Your task to perform on an android device: Open Youtube and go to the subscriptions tab Image 0: 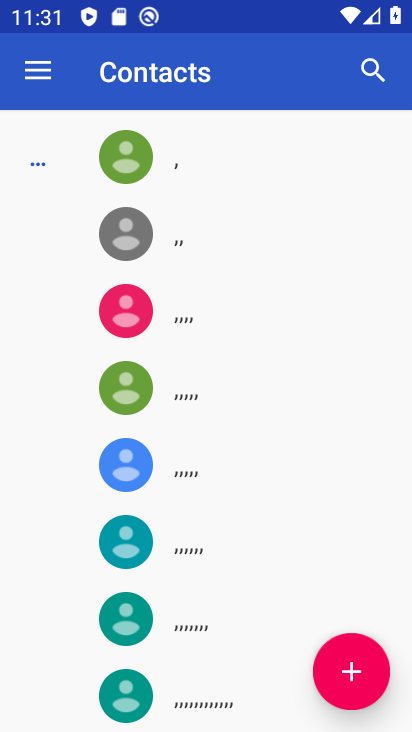
Step 0: press home button
Your task to perform on an android device: Open Youtube and go to the subscriptions tab Image 1: 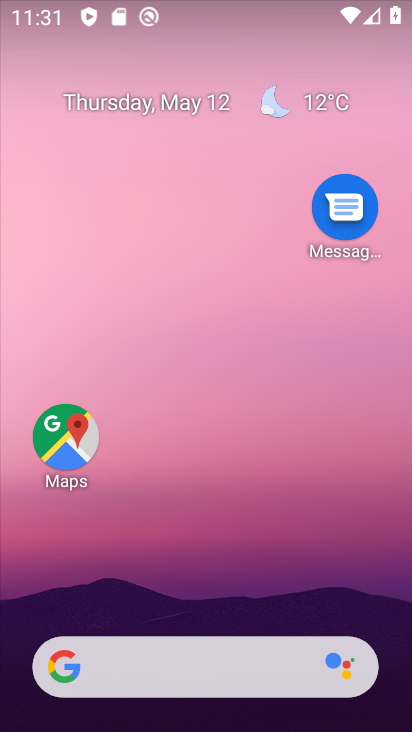
Step 1: drag from (317, 384) to (229, 25)
Your task to perform on an android device: Open Youtube and go to the subscriptions tab Image 2: 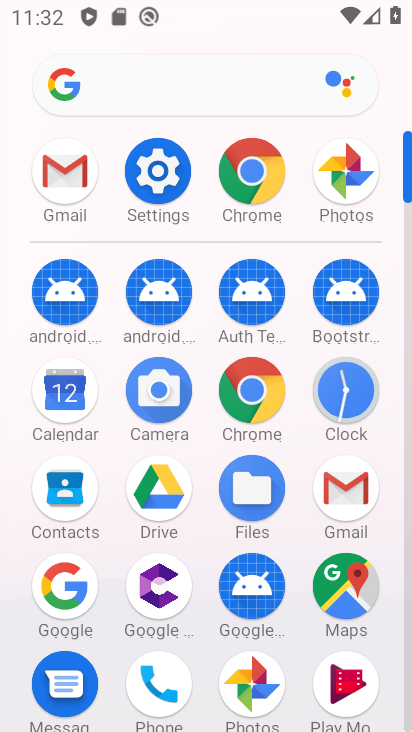
Step 2: click (409, 701)
Your task to perform on an android device: Open Youtube and go to the subscriptions tab Image 3: 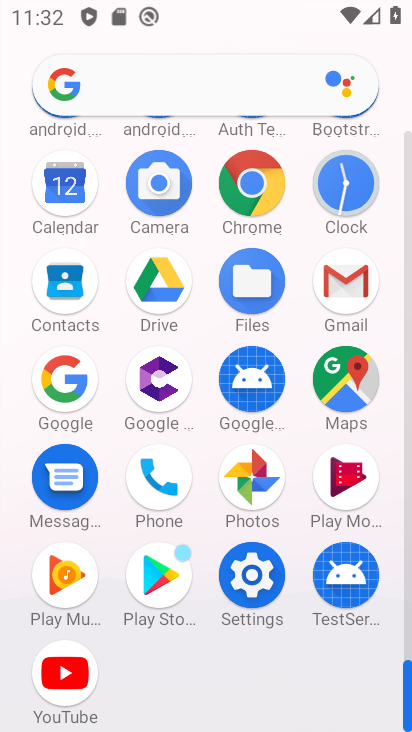
Step 3: click (49, 656)
Your task to perform on an android device: Open Youtube and go to the subscriptions tab Image 4: 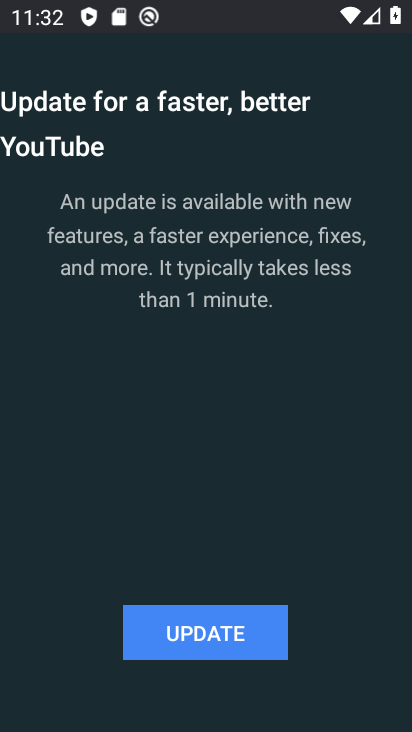
Step 4: click (202, 652)
Your task to perform on an android device: Open Youtube and go to the subscriptions tab Image 5: 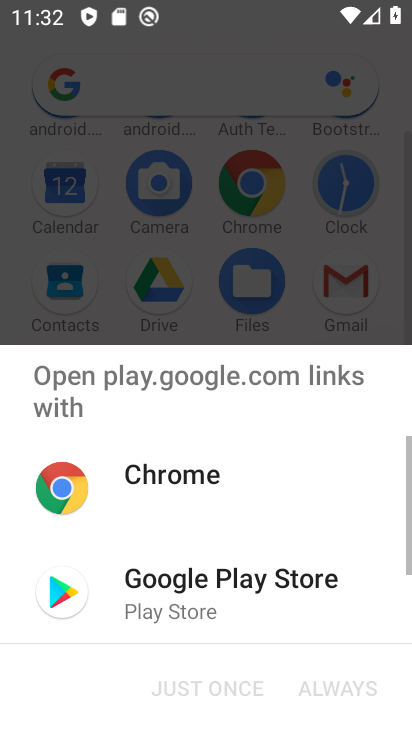
Step 5: click (202, 619)
Your task to perform on an android device: Open Youtube and go to the subscriptions tab Image 6: 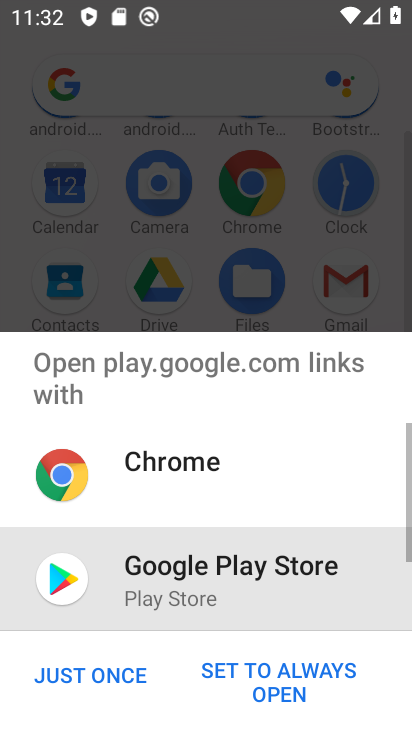
Step 6: click (111, 684)
Your task to perform on an android device: Open Youtube and go to the subscriptions tab Image 7: 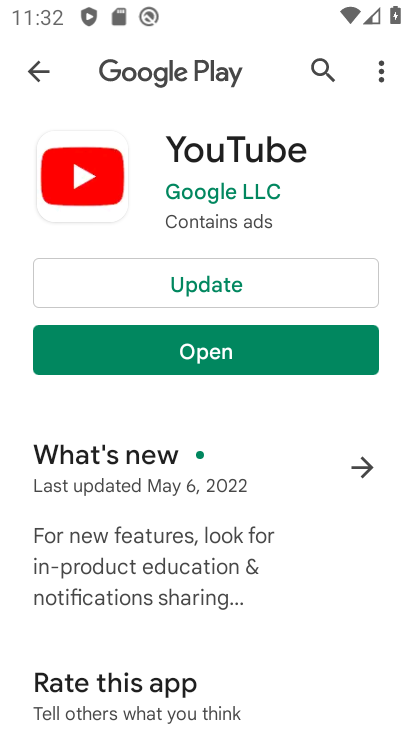
Step 7: click (242, 289)
Your task to perform on an android device: Open Youtube and go to the subscriptions tab Image 8: 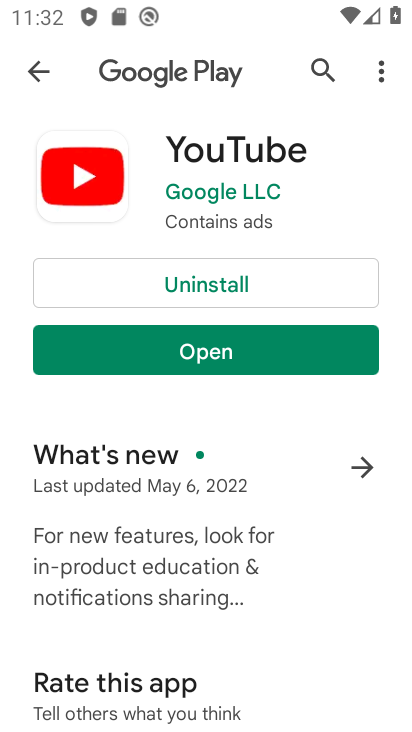
Step 8: click (286, 364)
Your task to perform on an android device: Open Youtube and go to the subscriptions tab Image 9: 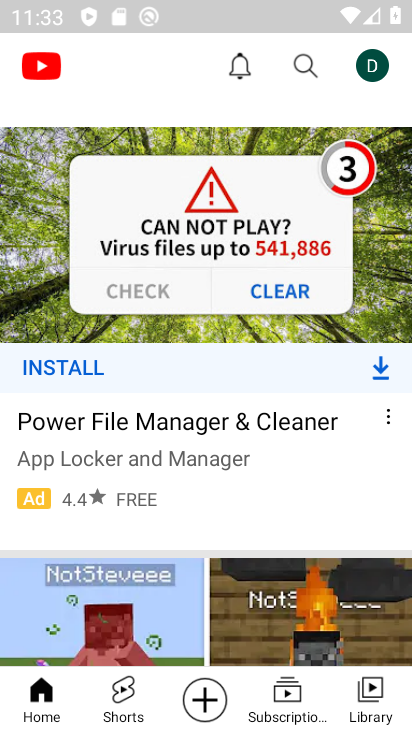
Step 9: click (346, 715)
Your task to perform on an android device: Open Youtube and go to the subscriptions tab Image 10: 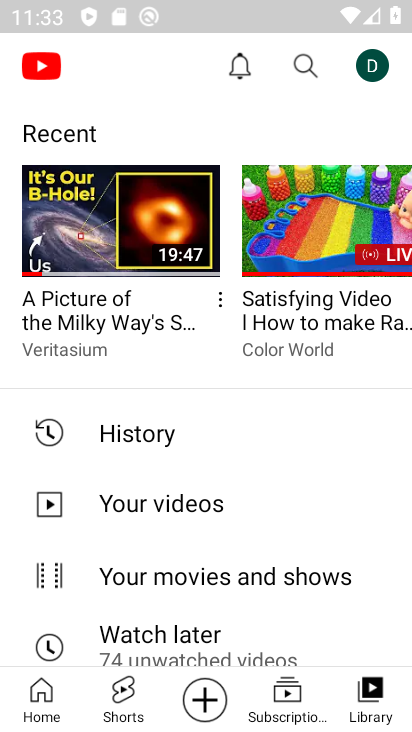
Step 10: click (285, 716)
Your task to perform on an android device: Open Youtube and go to the subscriptions tab Image 11: 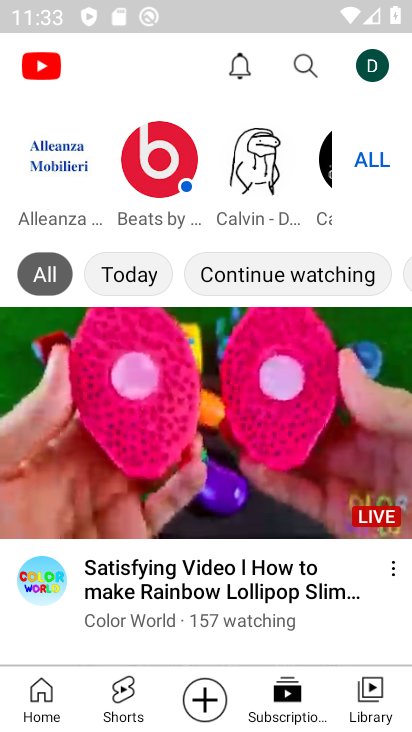
Step 11: task complete